Your task to perform on an android device: Open location settings Image 0: 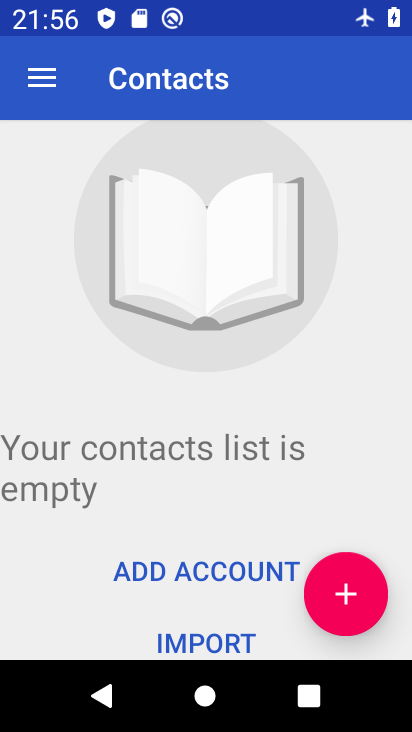
Step 0: press home button
Your task to perform on an android device: Open location settings Image 1: 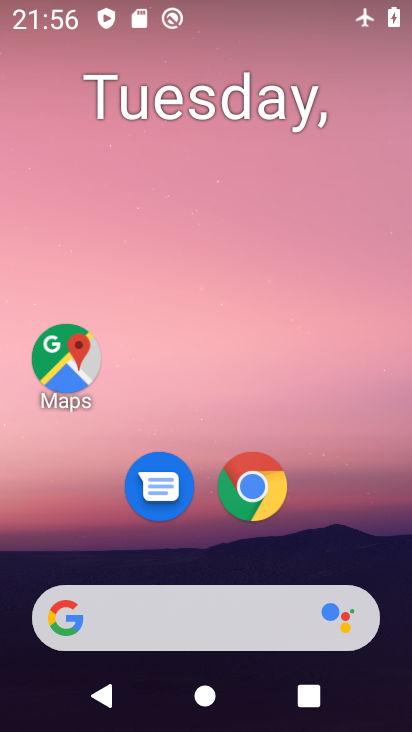
Step 1: drag from (365, 521) to (351, 75)
Your task to perform on an android device: Open location settings Image 2: 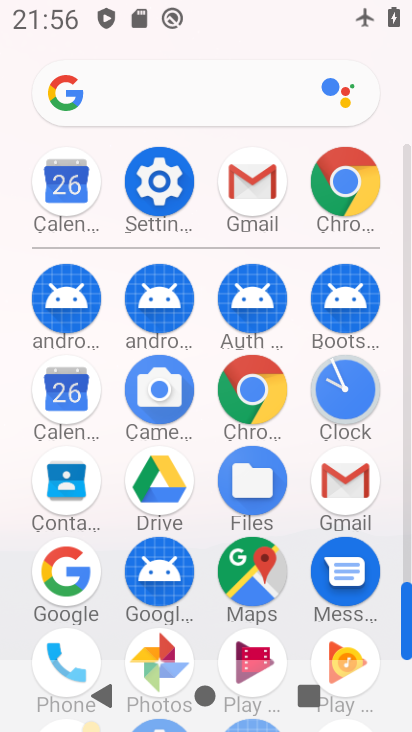
Step 2: click (160, 189)
Your task to perform on an android device: Open location settings Image 3: 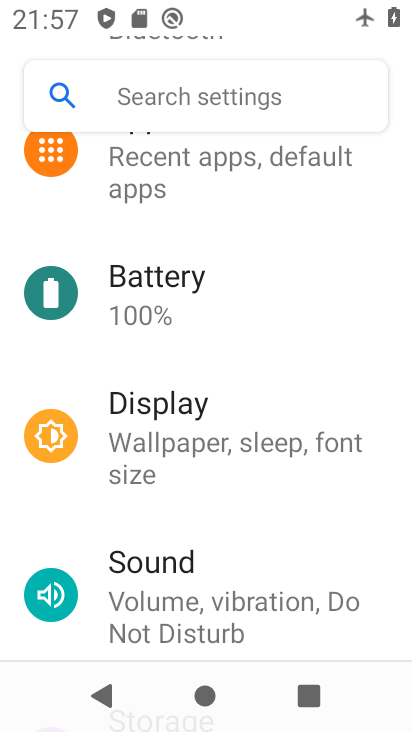
Step 3: drag from (321, 220) to (323, 319)
Your task to perform on an android device: Open location settings Image 4: 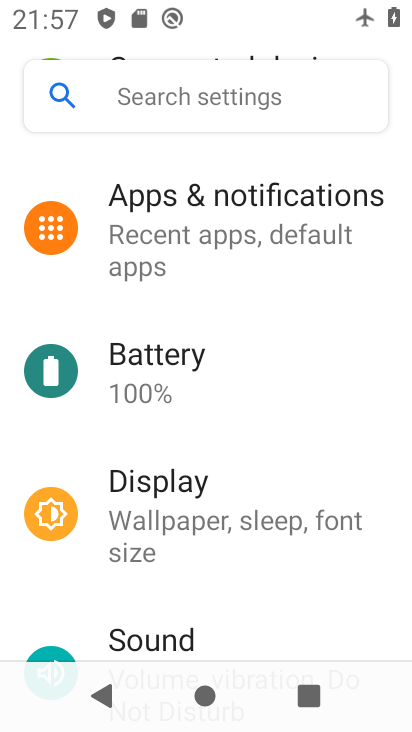
Step 4: drag from (378, 216) to (361, 456)
Your task to perform on an android device: Open location settings Image 5: 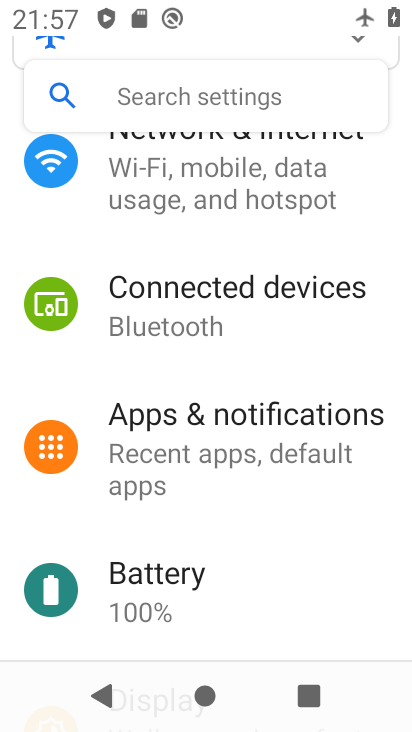
Step 5: drag from (378, 176) to (379, 483)
Your task to perform on an android device: Open location settings Image 6: 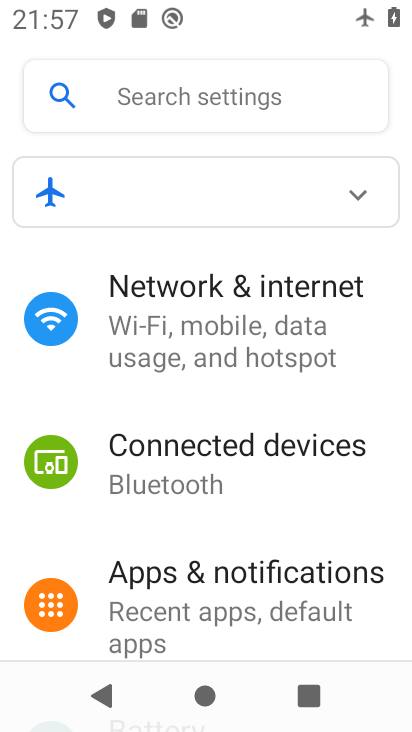
Step 6: drag from (368, 515) to (384, 385)
Your task to perform on an android device: Open location settings Image 7: 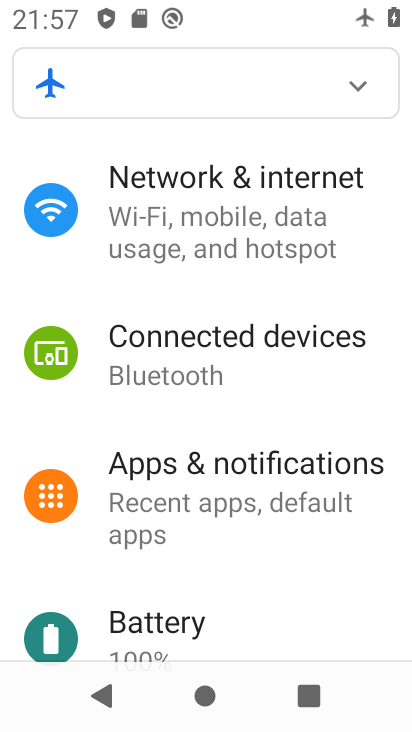
Step 7: drag from (363, 535) to (370, 405)
Your task to perform on an android device: Open location settings Image 8: 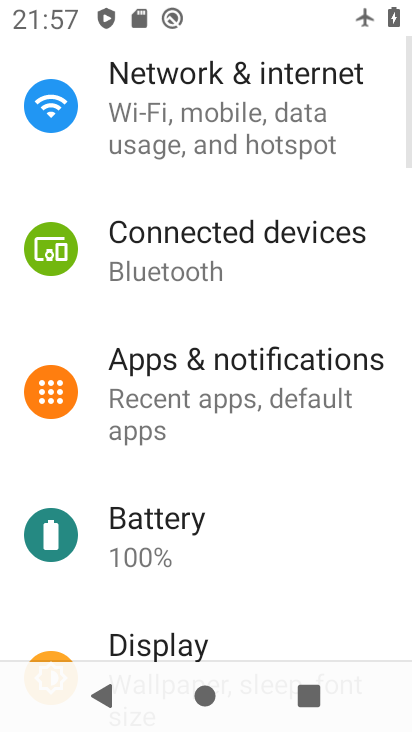
Step 8: drag from (351, 520) to (350, 406)
Your task to perform on an android device: Open location settings Image 9: 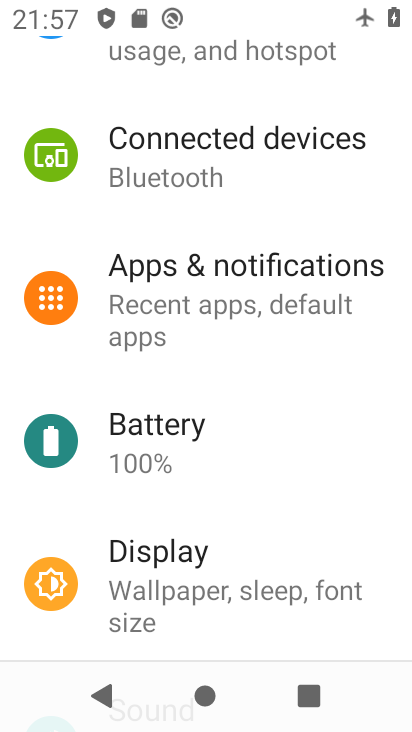
Step 9: drag from (328, 500) to (336, 242)
Your task to perform on an android device: Open location settings Image 10: 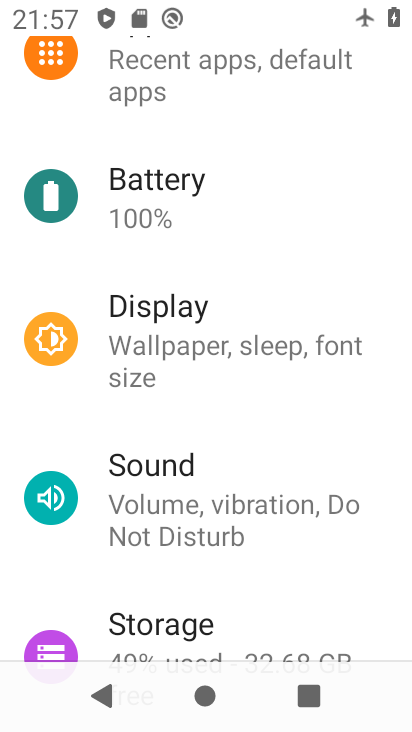
Step 10: drag from (307, 435) to (307, 263)
Your task to perform on an android device: Open location settings Image 11: 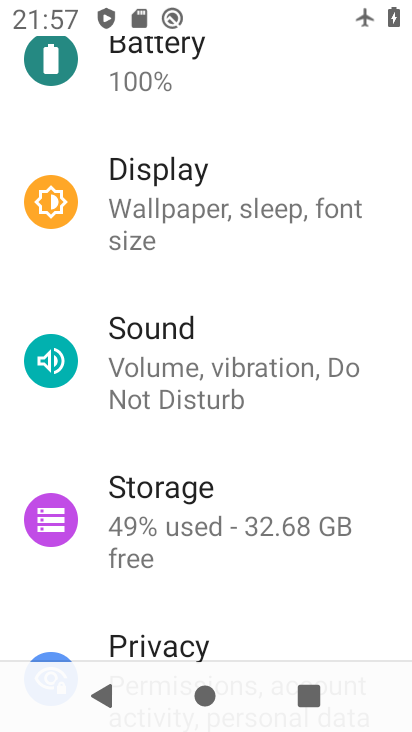
Step 11: drag from (279, 426) to (280, 285)
Your task to perform on an android device: Open location settings Image 12: 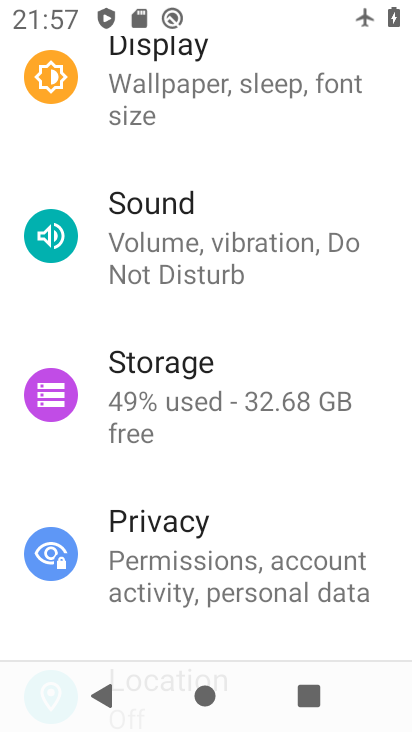
Step 12: drag from (287, 462) to (296, 401)
Your task to perform on an android device: Open location settings Image 13: 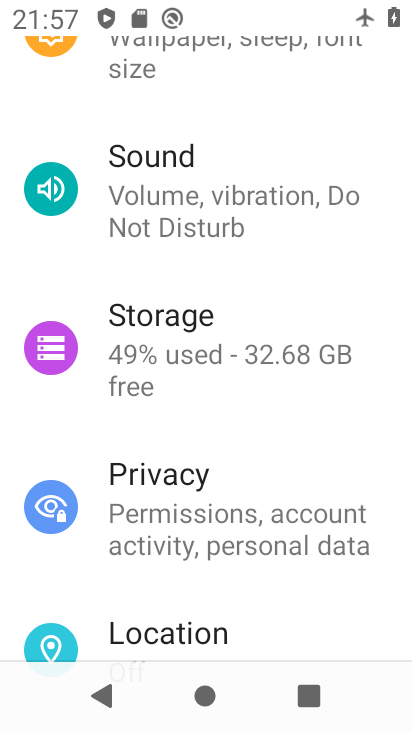
Step 13: drag from (290, 479) to (299, 296)
Your task to perform on an android device: Open location settings Image 14: 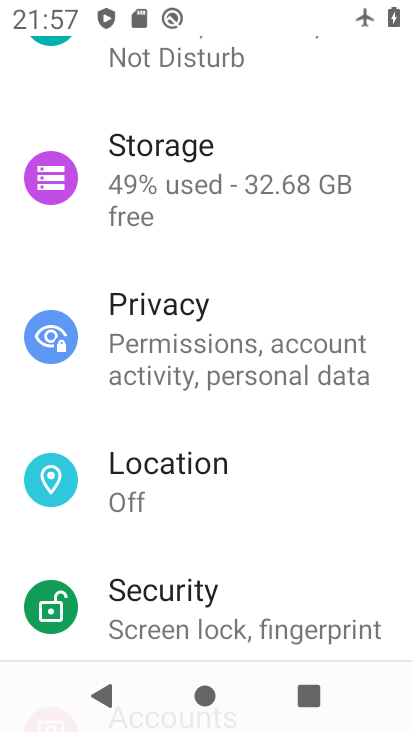
Step 14: click (226, 478)
Your task to perform on an android device: Open location settings Image 15: 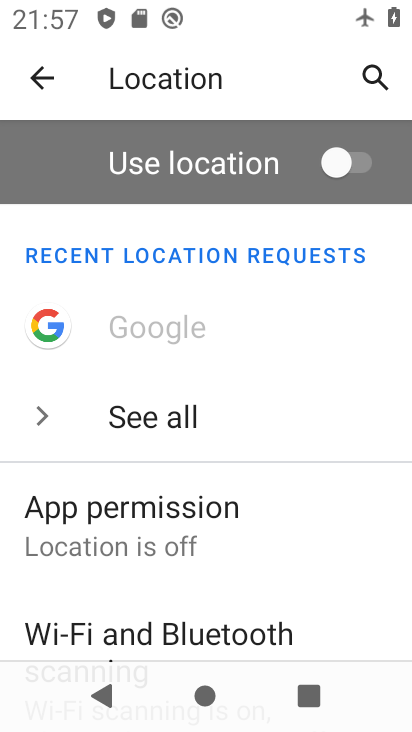
Step 15: task complete